Your task to perform on an android device: Go to ESPN.com Image 0: 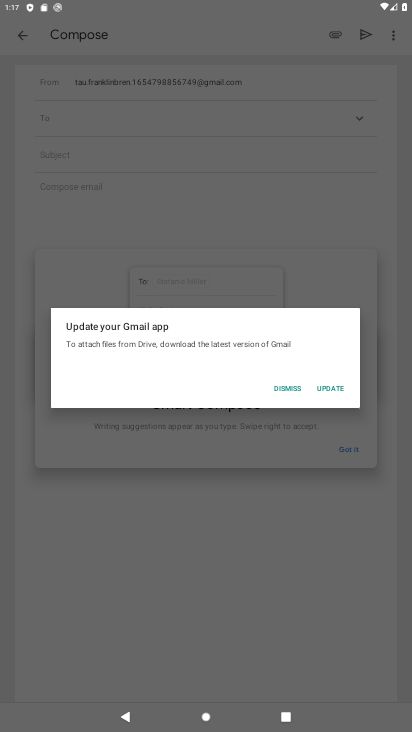
Step 0: press home button
Your task to perform on an android device: Go to ESPN.com Image 1: 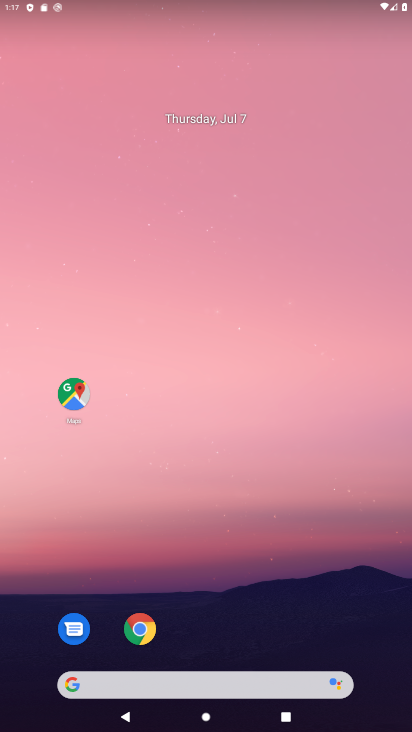
Step 1: drag from (200, 630) to (222, 122)
Your task to perform on an android device: Go to ESPN.com Image 2: 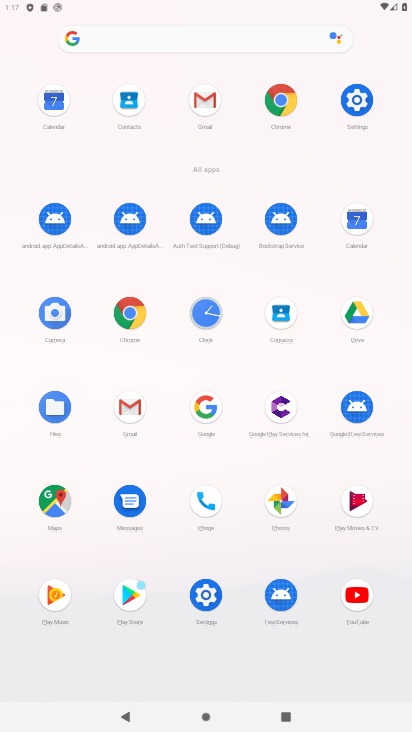
Step 2: click (126, 316)
Your task to perform on an android device: Go to ESPN.com Image 3: 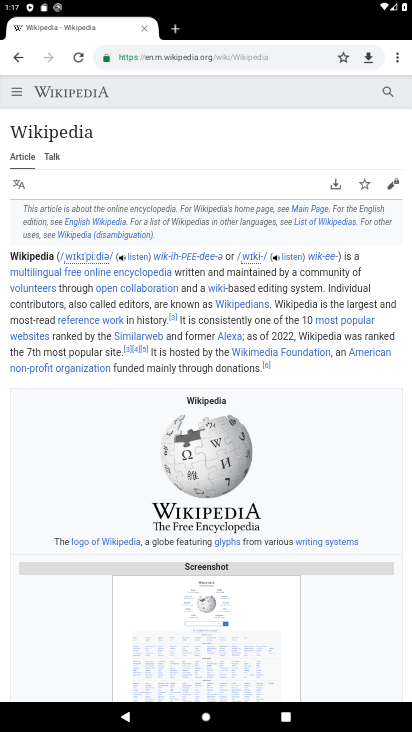
Step 3: click (203, 57)
Your task to perform on an android device: Go to ESPN.com Image 4: 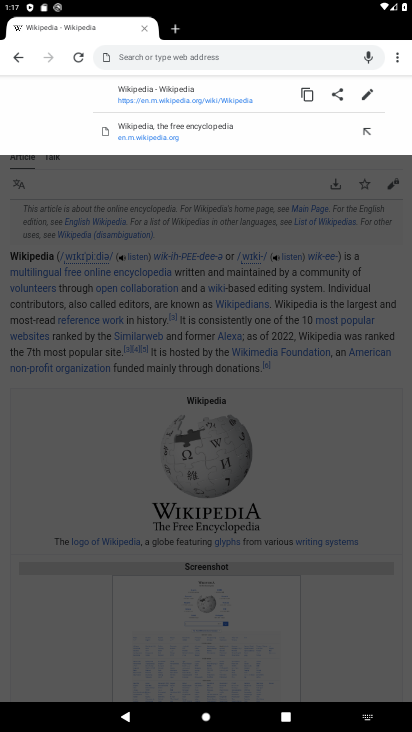
Step 4: type "ESPN.com"
Your task to perform on an android device: Go to ESPN.com Image 5: 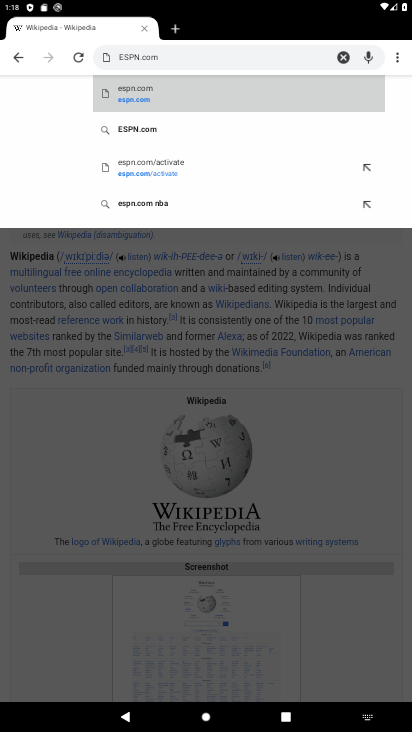
Step 5: click (172, 102)
Your task to perform on an android device: Go to ESPN.com Image 6: 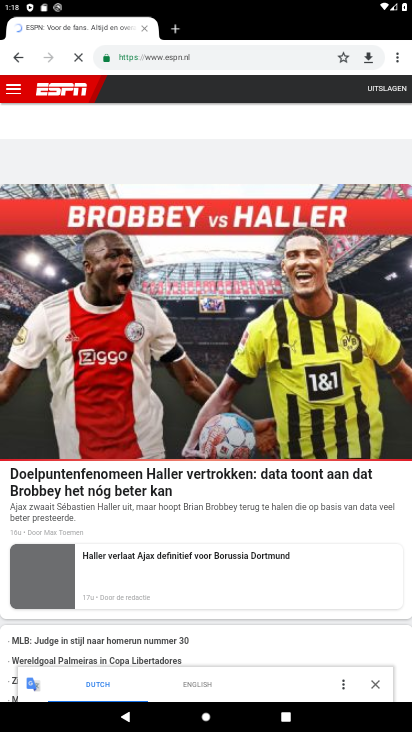
Step 6: task complete